Your task to perform on an android device: turn off priority inbox in the gmail app Image 0: 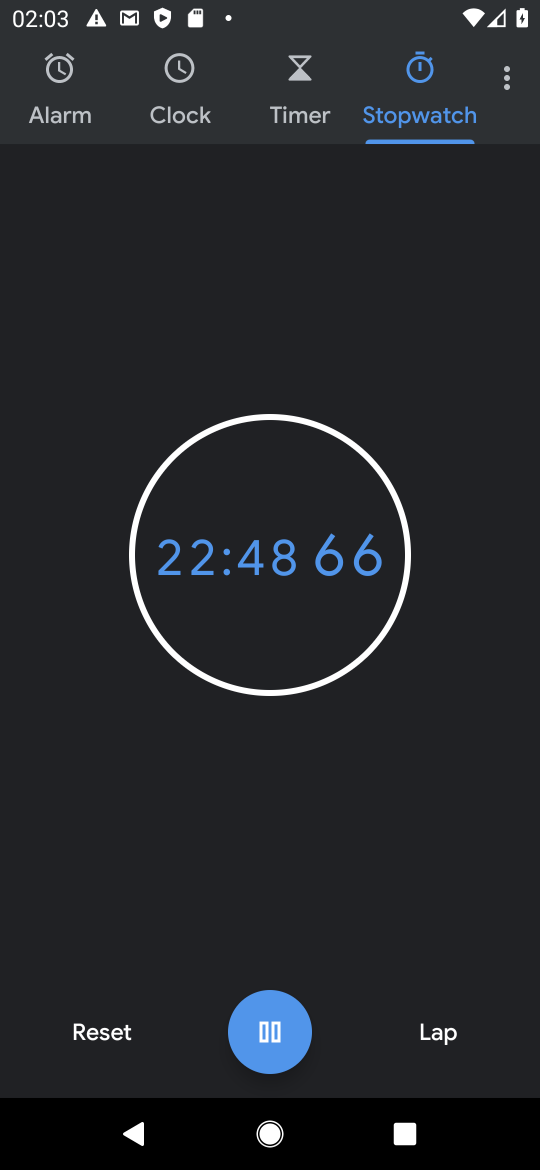
Step 0: press home button
Your task to perform on an android device: turn off priority inbox in the gmail app Image 1: 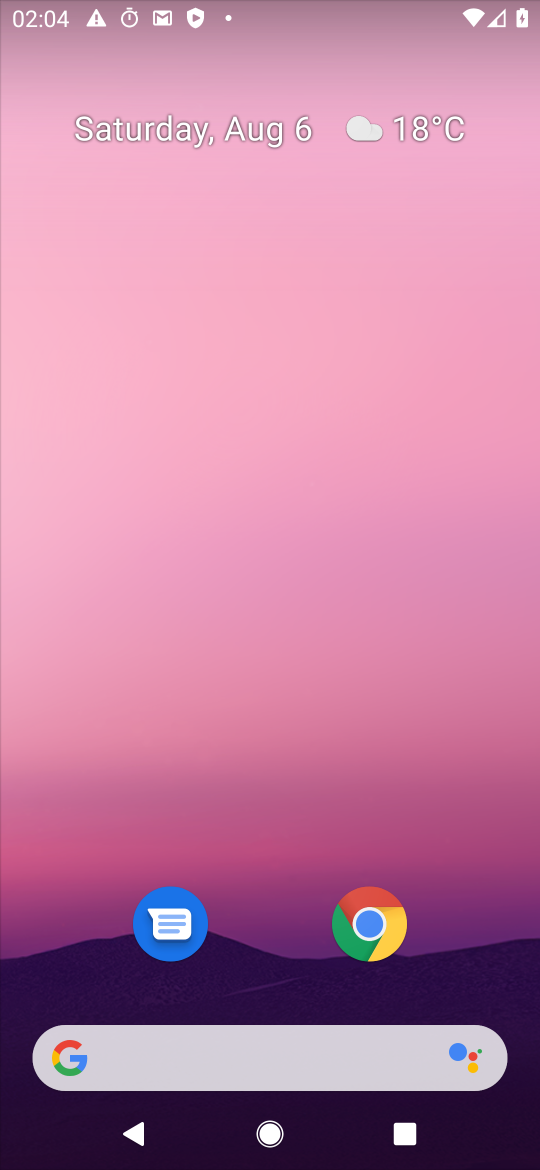
Step 1: drag from (241, 1040) to (269, 691)
Your task to perform on an android device: turn off priority inbox in the gmail app Image 2: 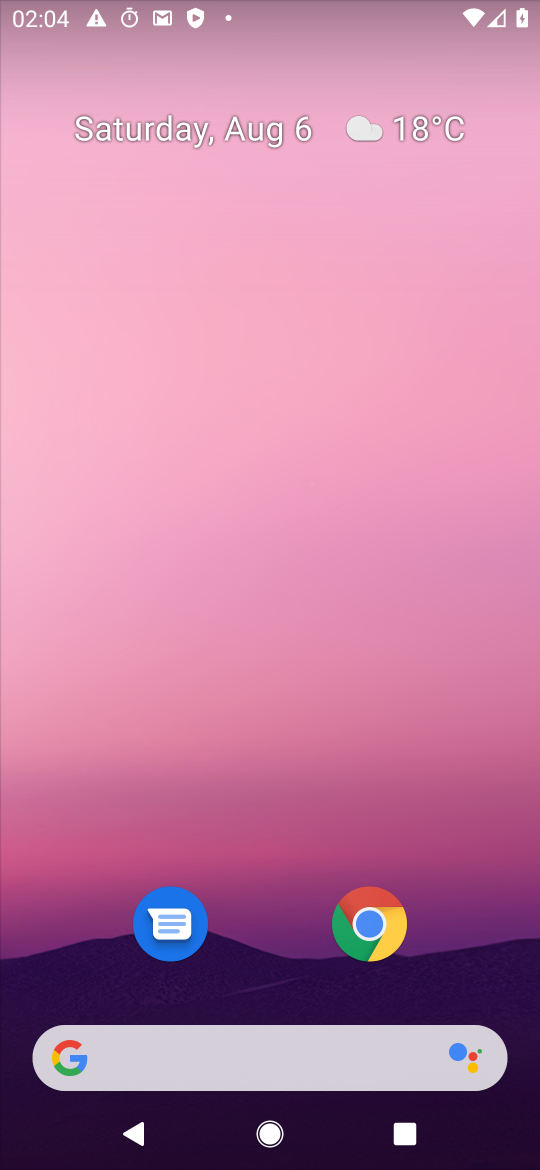
Step 2: drag from (309, 1053) to (460, 78)
Your task to perform on an android device: turn off priority inbox in the gmail app Image 3: 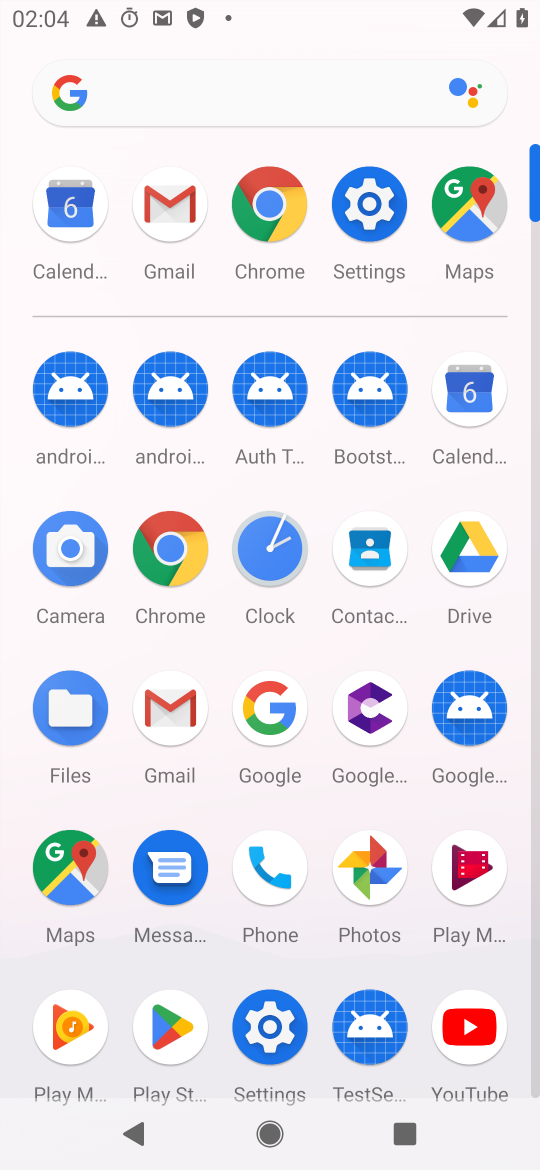
Step 3: click (174, 727)
Your task to perform on an android device: turn off priority inbox in the gmail app Image 4: 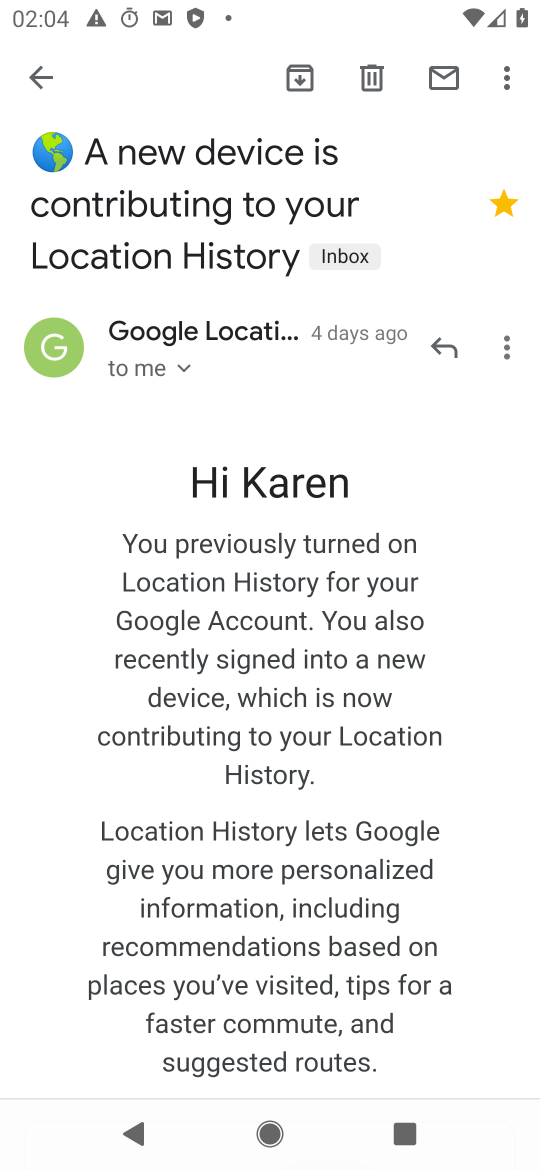
Step 4: press back button
Your task to perform on an android device: turn off priority inbox in the gmail app Image 5: 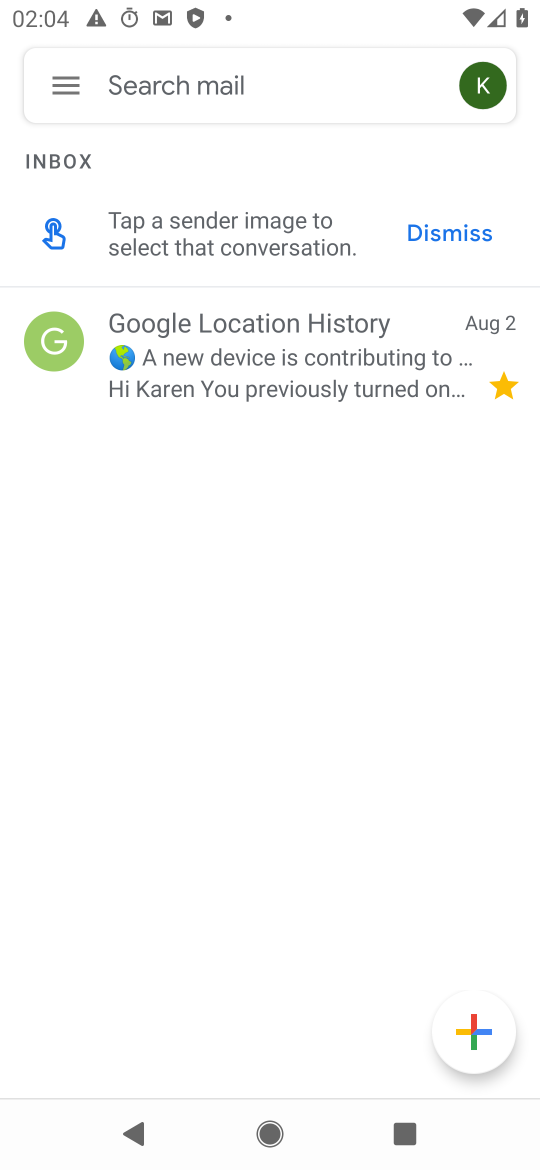
Step 5: click (63, 88)
Your task to perform on an android device: turn off priority inbox in the gmail app Image 6: 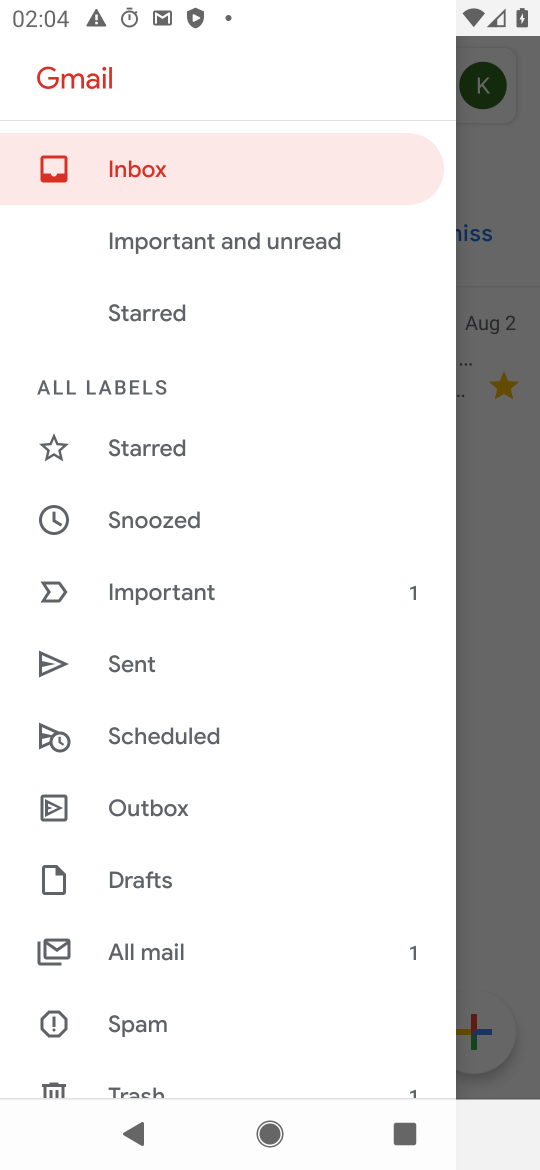
Step 6: drag from (307, 1072) to (292, 408)
Your task to perform on an android device: turn off priority inbox in the gmail app Image 7: 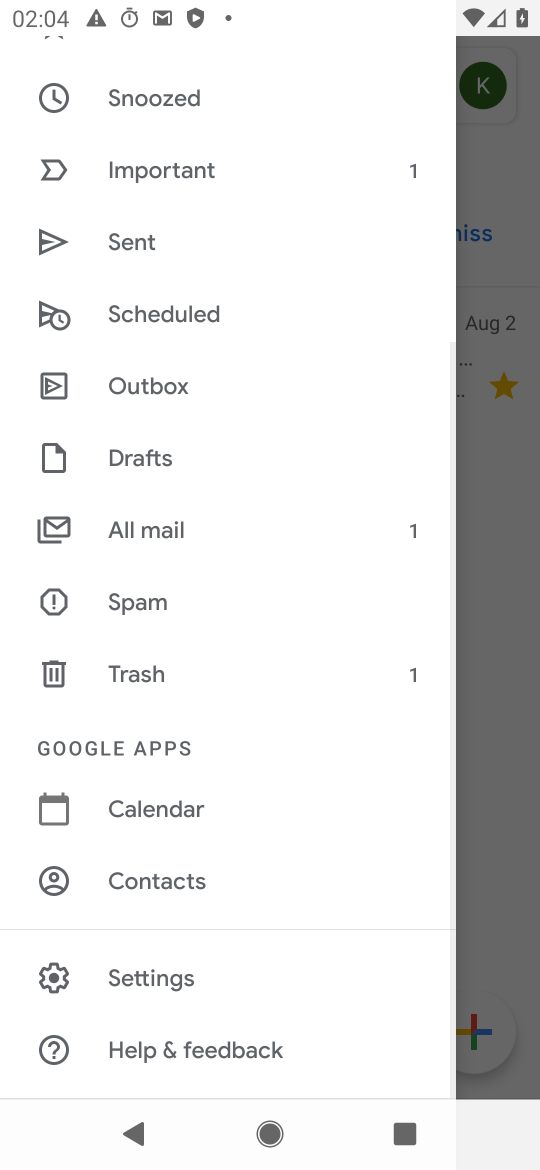
Step 7: click (148, 982)
Your task to perform on an android device: turn off priority inbox in the gmail app Image 8: 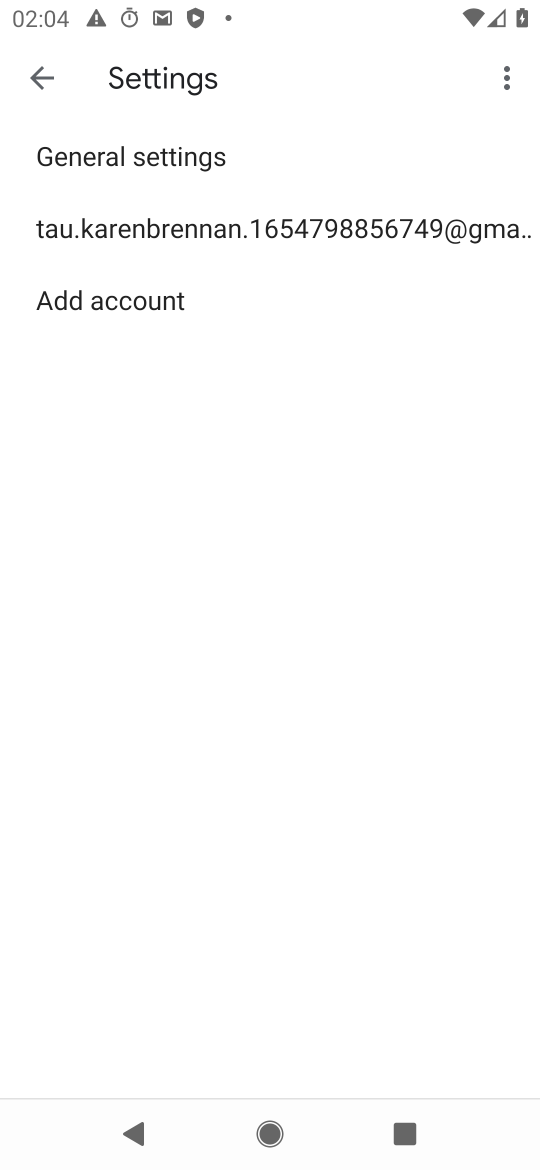
Step 8: click (387, 223)
Your task to perform on an android device: turn off priority inbox in the gmail app Image 9: 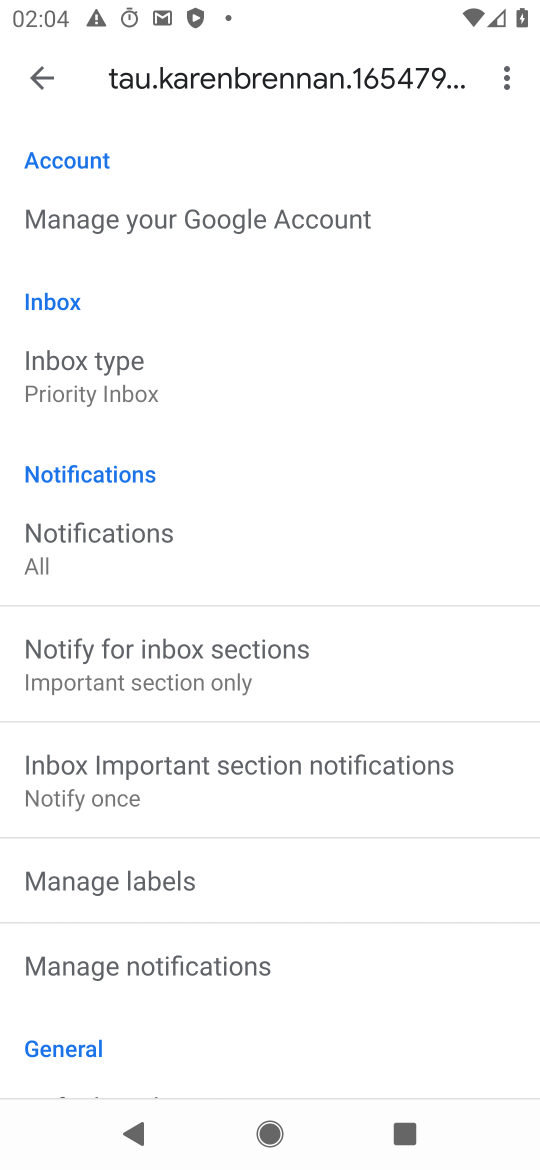
Step 9: click (74, 387)
Your task to perform on an android device: turn off priority inbox in the gmail app Image 10: 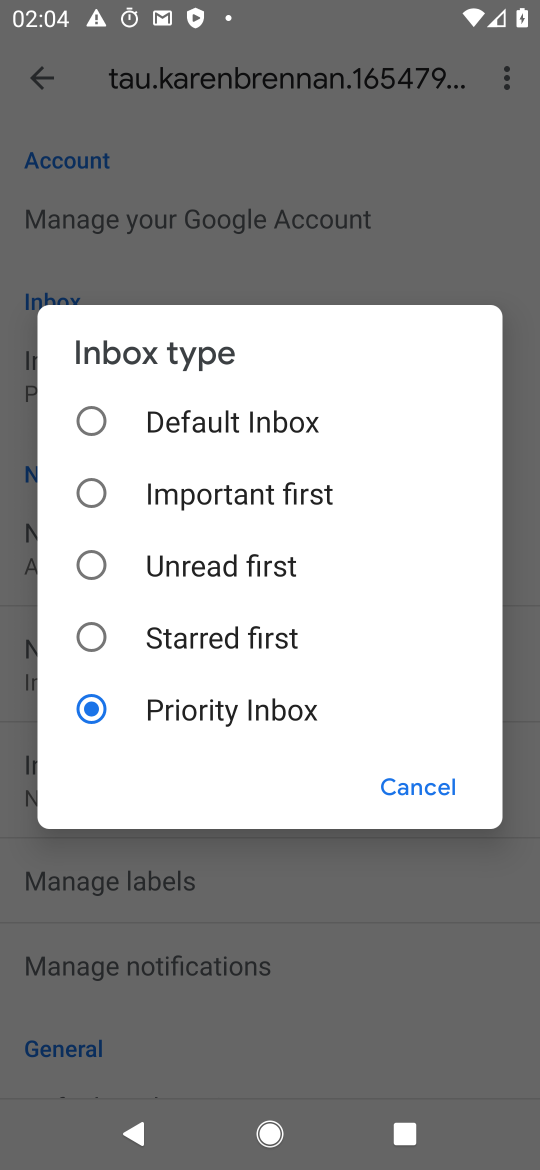
Step 10: click (92, 419)
Your task to perform on an android device: turn off priority inbox in the gmail app Image 11: 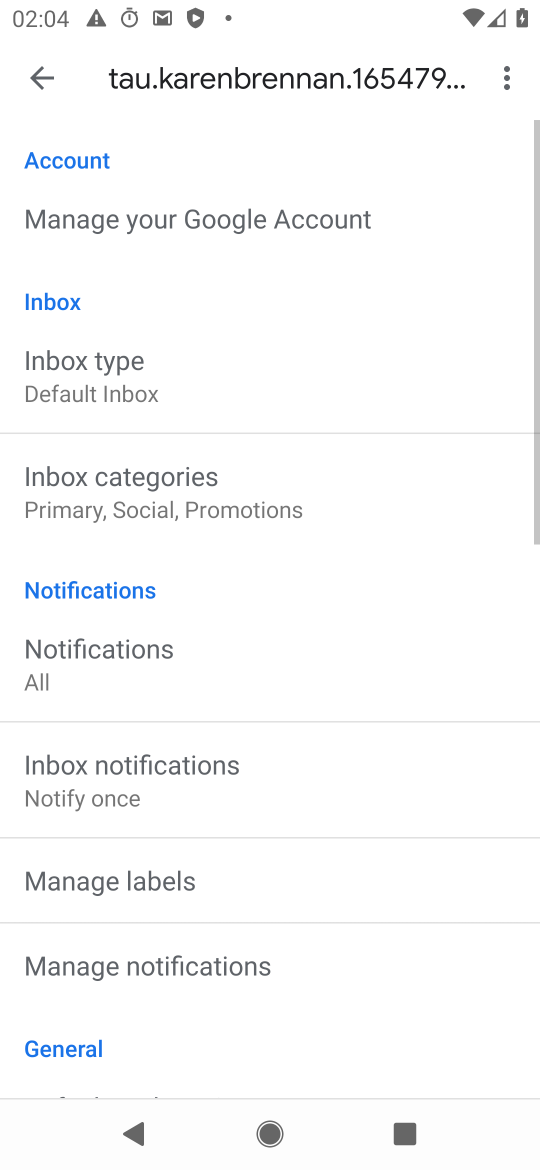
Step 11: task complete